Your task to perform on an android device: turn off notifications settings in the gmail app Image 0: 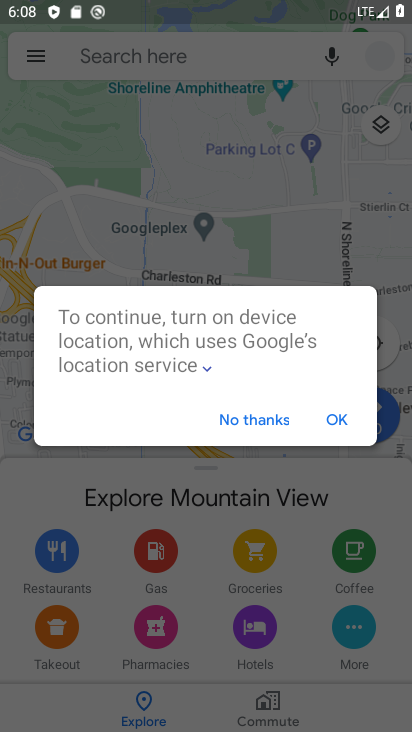
Step 0: press home button
Your task to perform on an android device: turn off notifications settings in the gmail app Image 1: 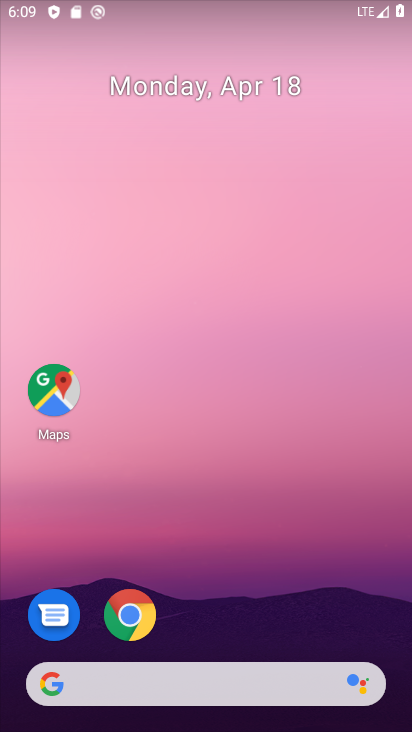
Step 1: drag from (315, 614) to (330, 97)
Your task to perform on an android device: turn off notifications settings in the gmail app Image 2: 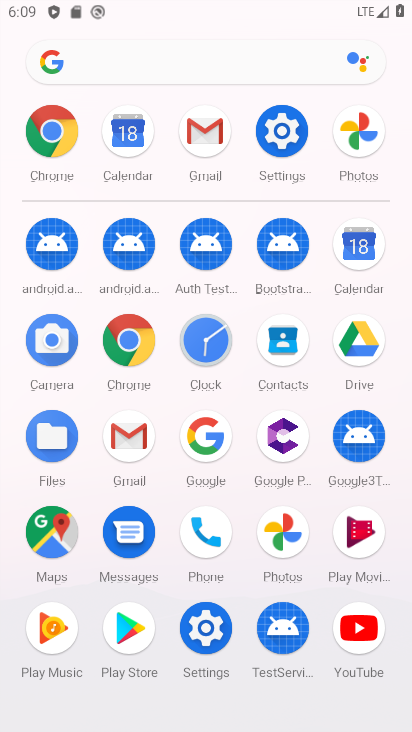
Step 2: click (206, 141)
Your task to perform on an android device: turn off notifications settings in the gmail app Image 3: 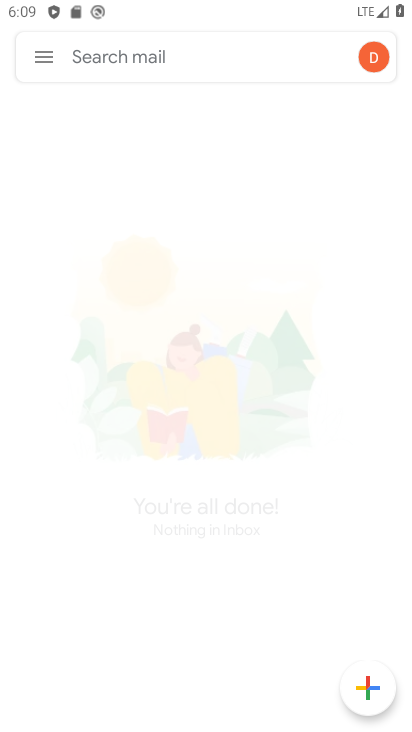
Step 3: press home button
Your task to perform on an android device: turn off notifications settings in the gmail app Image 4: 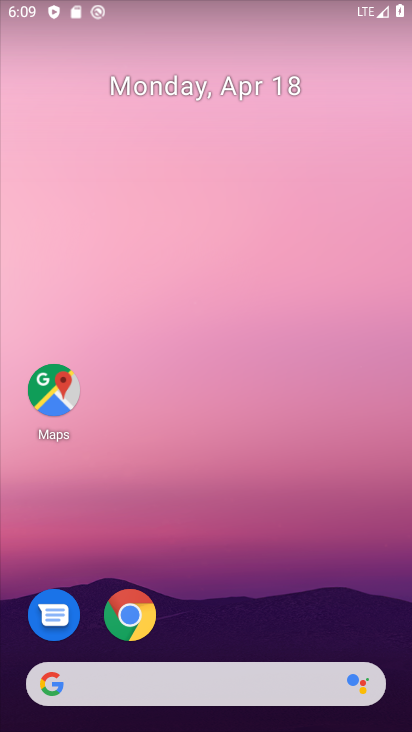
Step 4: drag from (239, 554) to (245, 58)
Your task to perform on an android device: turn off notifications settings in the gmail app Image 5: 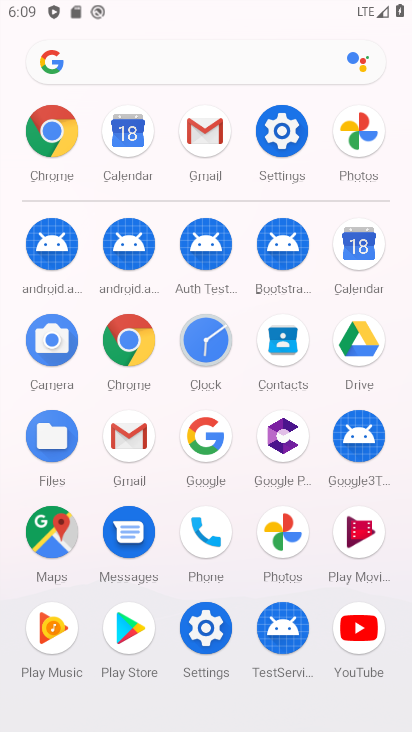
Step 5: click (218, 129)
Your task to perform on an android device: turn off notifications settings in the gmail app Image 6: 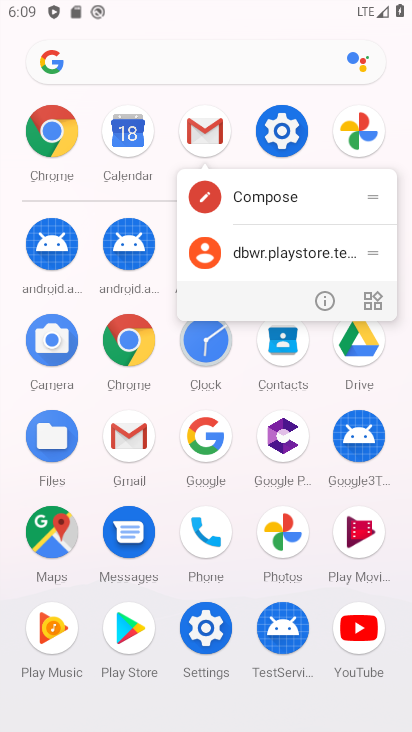
Step 6: click (314, 296)
Your task to perform on an android device: turn off notifications settings in the gmail app Image 7: 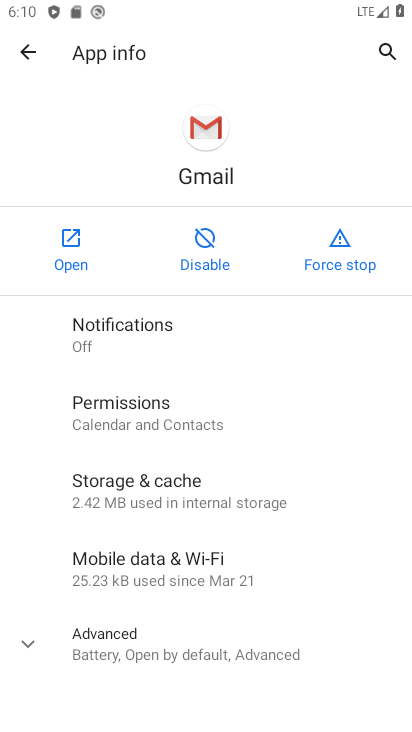
Step 7: click (163, 334)
Your task to perform on an android device: turn off notifications settings in the gmail app Image 8: 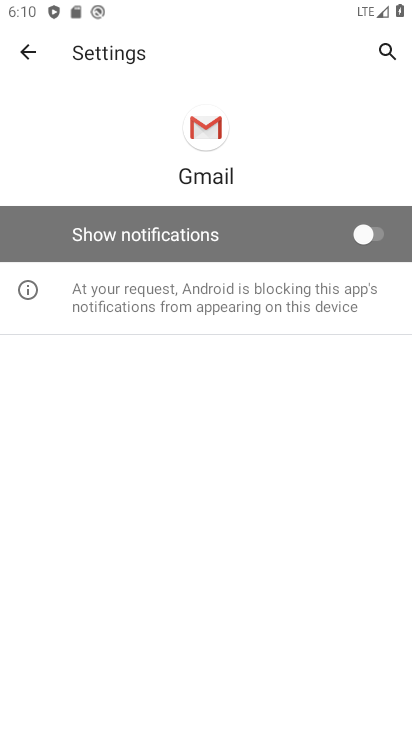
Step 8: task complete